Your task to perform on an android device: Open battery settings Image 0: 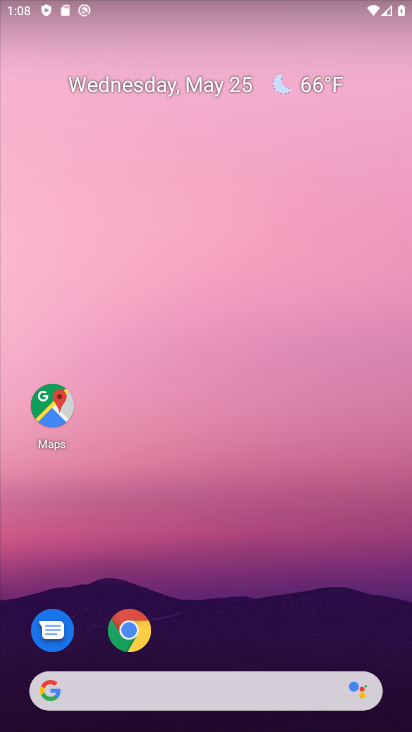
Step 0: press home button
Your task to perform on an android device: Open battery settings Image 1: 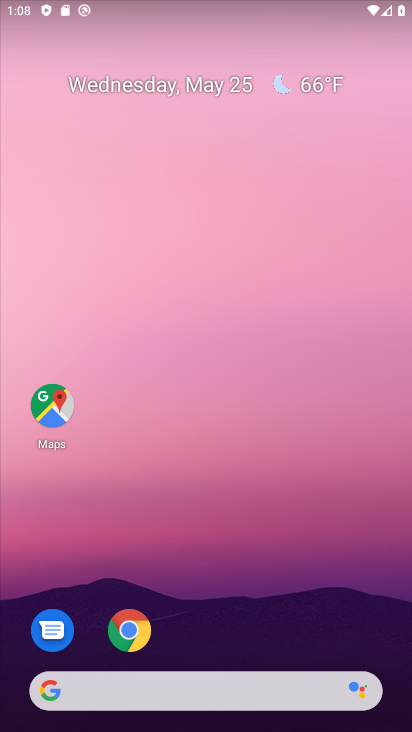
Step 1: drag from (205, 643) to (193, 240)
Your task to perform on an android device: Open battery settings Image 2: 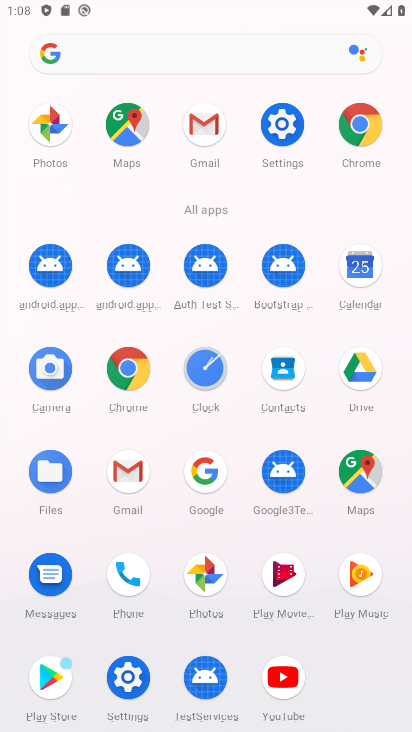
Step 2: click (282, 115)
Your task to perform on an android device: Open battery settings Image 3: 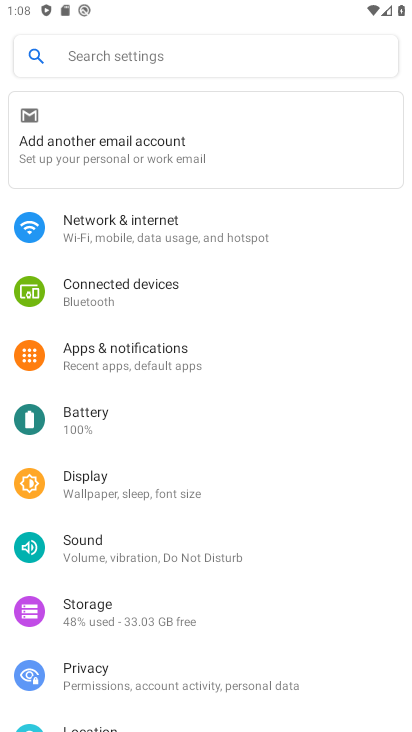
Step 3: click (110, 417)
Your task to perform on an android device: Open battery settings Image 4: 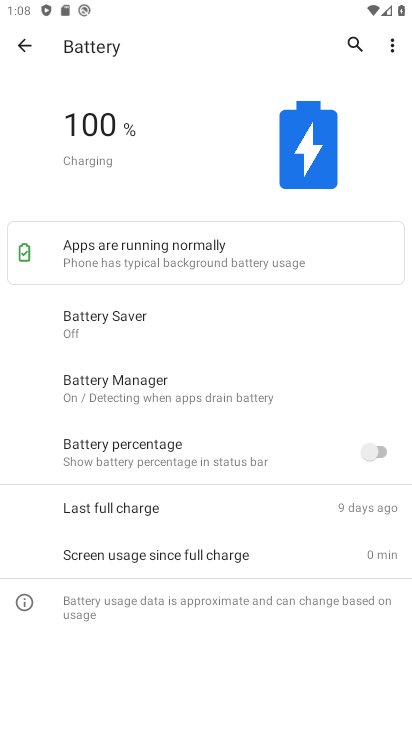
Step 4: task complete